Your task to perform on an android device: all mails in gmail Image 0: 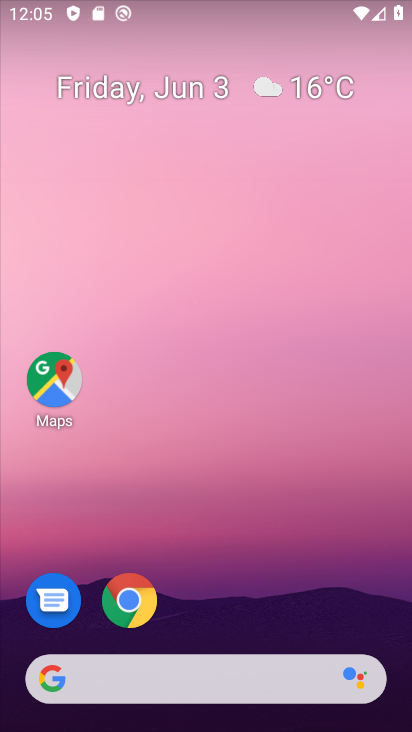
Step 0: drag from (302, 563) to (256, 275)
Your task to perform on an android device: all mails in gmail Image 1: 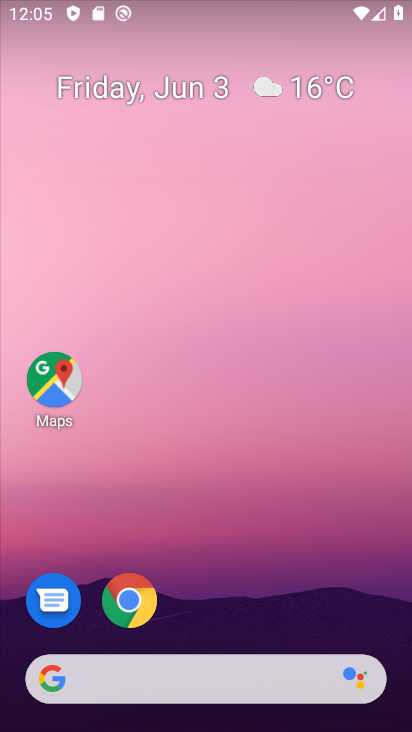
Step 1: drag from (291, 469) to (259, 198)
Your task to perform on an android device: all mails in gmail Image 2: 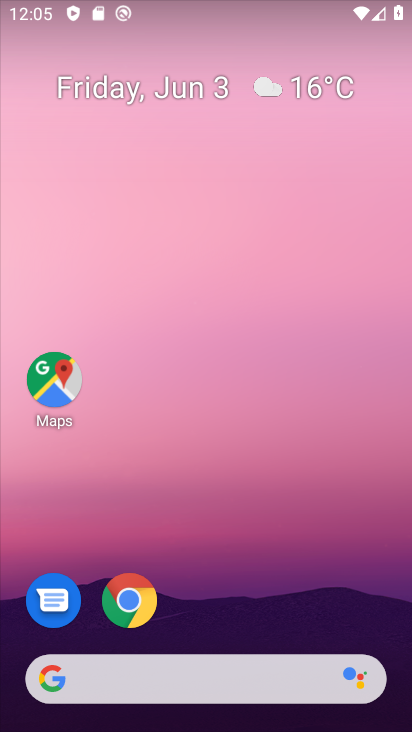
Step 2: drag from (385, 626) to (375, 175)
Your task to perform on an android device: all mails in gmail Image 3: 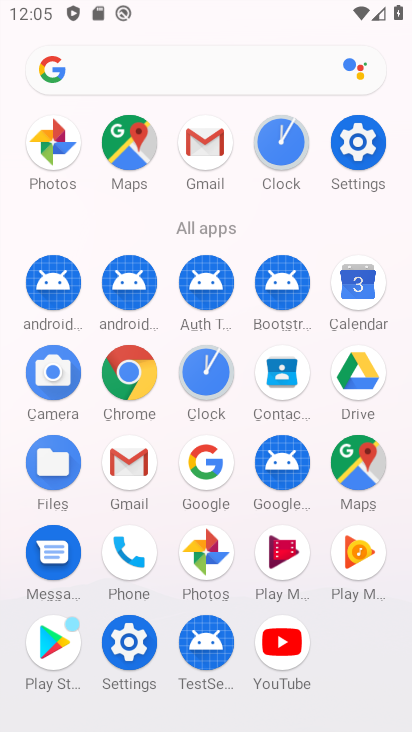
Step 3: click (217, 154)
Your task to perform on an android device: all mails in gmail Image 4: 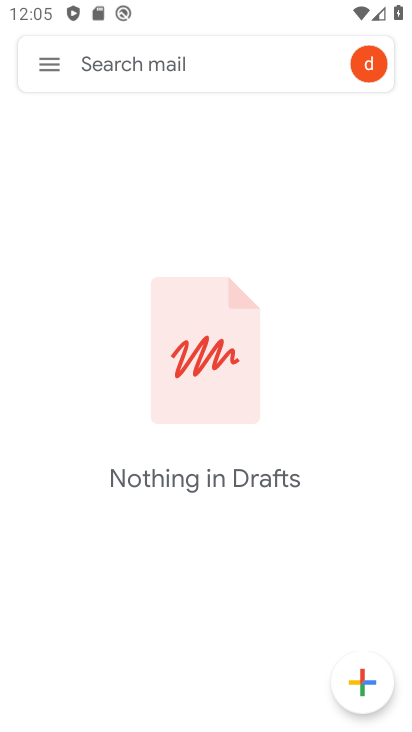
Step 4: click (48, 73)
Your task to perform on an android device: all mails in gmail Image 5: 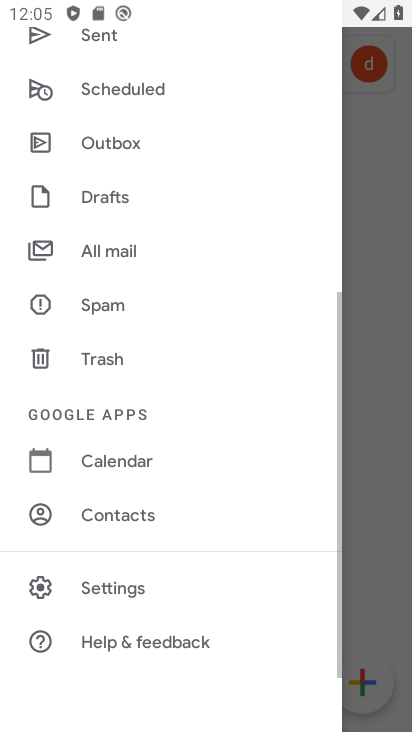
Step 5: click (118, 257)
Your task to perform on an android device: all mails in gmail Image 6: 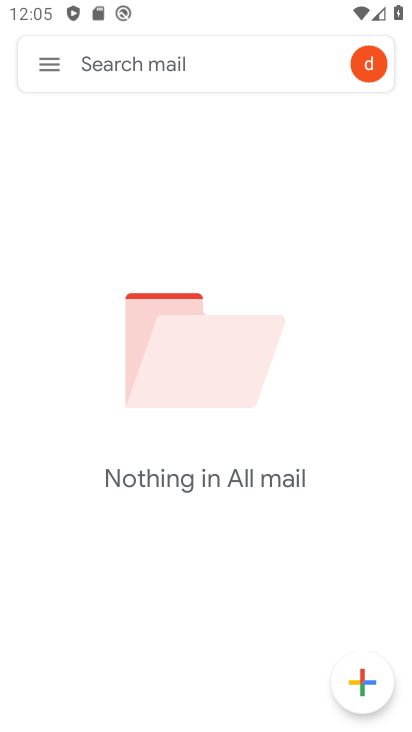
Step 6: task complete